Your task to perform on an android device: Open Google Chrome and open the bookmarks view Image 0: 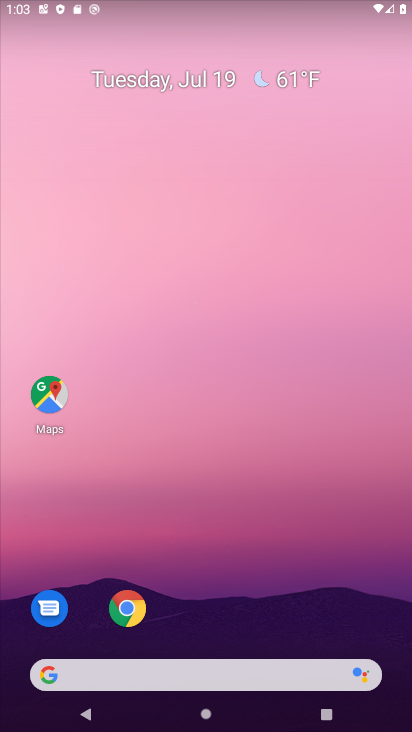
Step 0: drag from (338, 613) to (317, 52)
Your task to perform on an android device: Open Google Chrome and open the bookmarks view Image 1: 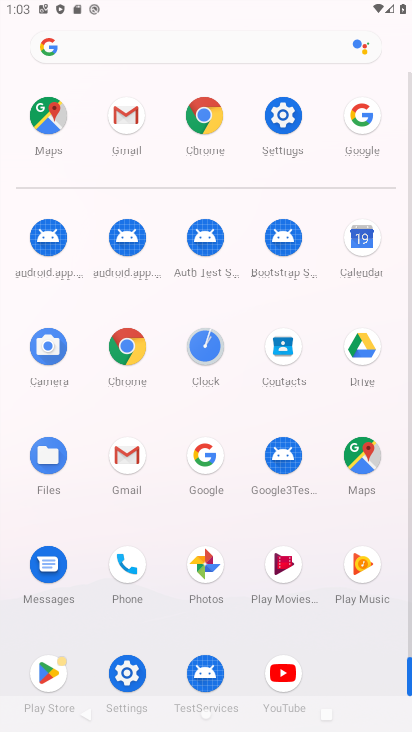
Step 1: click (184, 127)
Your task to perform on an android device: Open Google Chrome and open the bookmarks view Image 2: 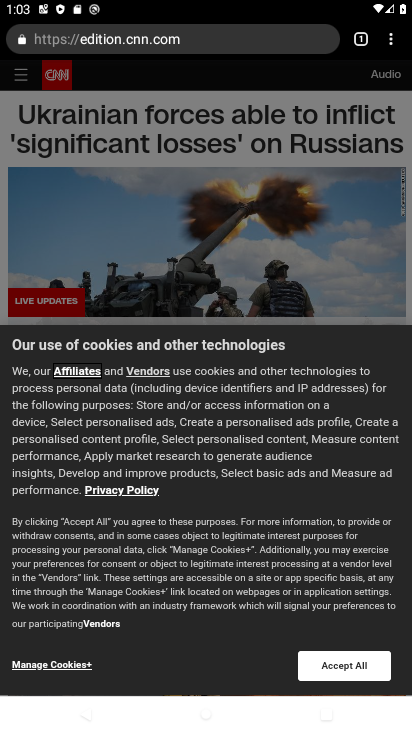
Step 2: task complete